Your task to perform on an android device: read, delete, or share a saved page in the chrome app Image 0: 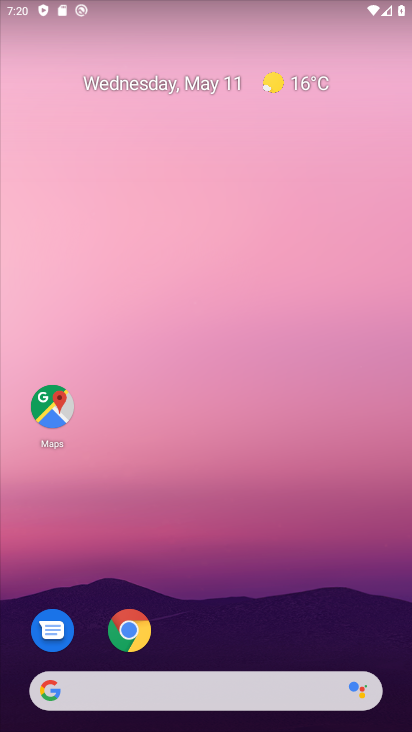
Step 0: drag from (306, 561) to (410, 71)
Your task to perform on an android device: read, delete, or share a saved page in the chrome app Image 1: 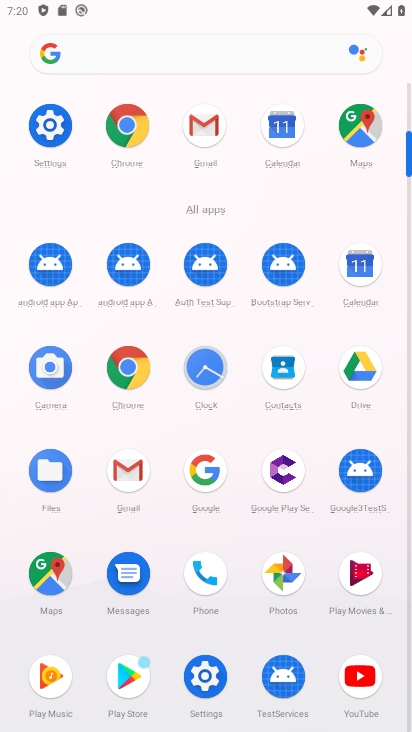
Step 1: click (135, 137)
Your task to perform on an android device: read, delete, or share a saved page in the chrome app Image 2: 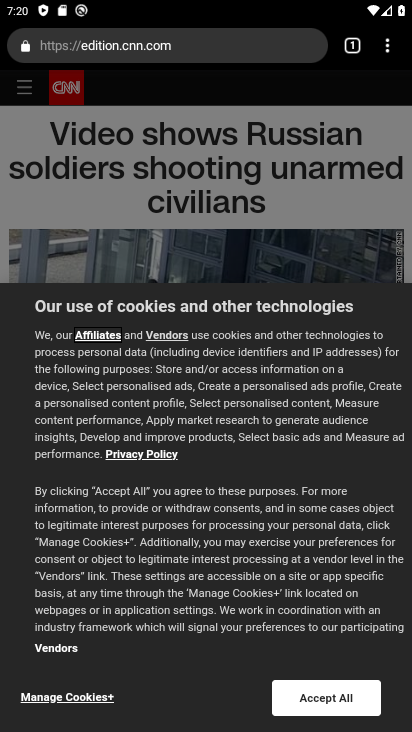
Step 2: drag from (403, 52) to (246, 298)
Your task to perform on an android device: read, delete, or share a saved page in the chrome app Image 3: 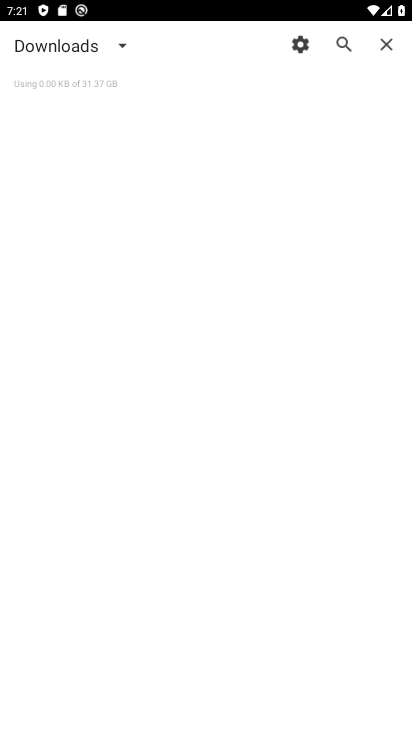
Step 3: click (117, 40)
Your task to perform on an android device: read, delete, or share a saved page in the chrome app Image 4: 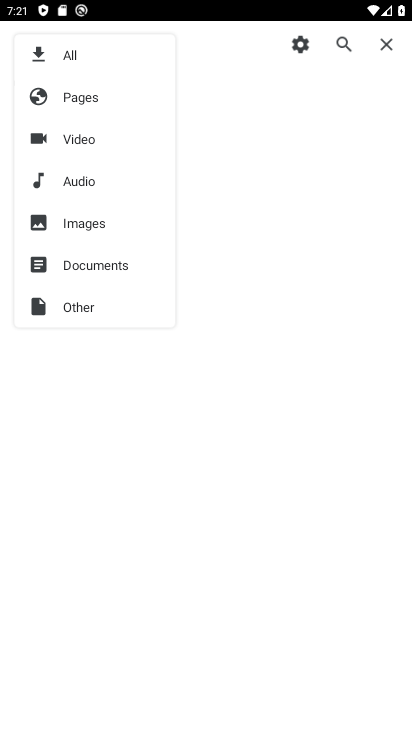
Step 4: click (263, 225)
Your task to perform on an android device: read, delete, or share a saved page in the chrome app Image 5: 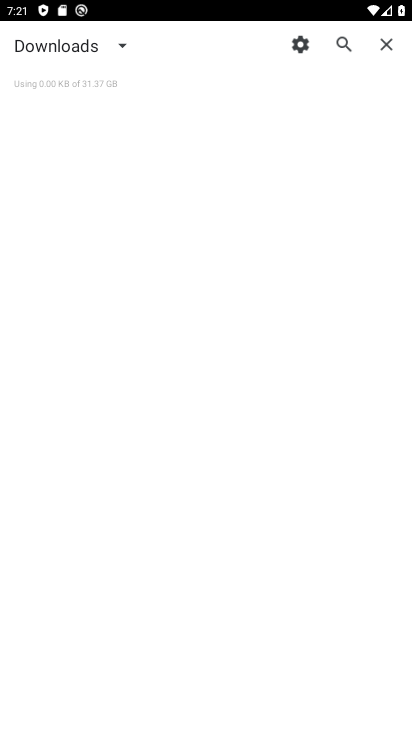
Step 5: task complete